Your task to perform on an android device: set the stopwatch Image 0: 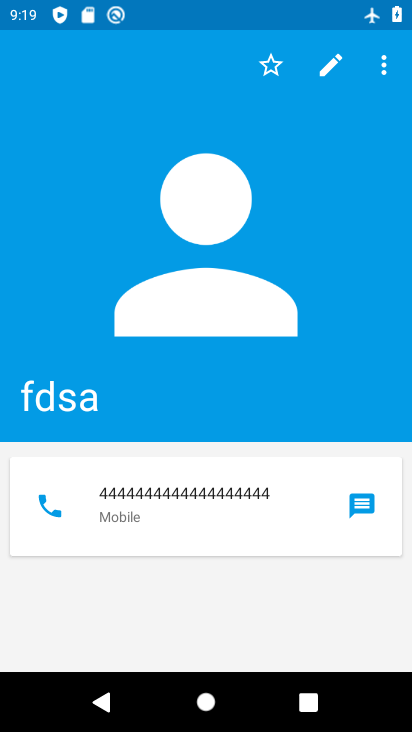
Step 0: press home button
Your task to perform on an android device: set the stopwatch Image 1: 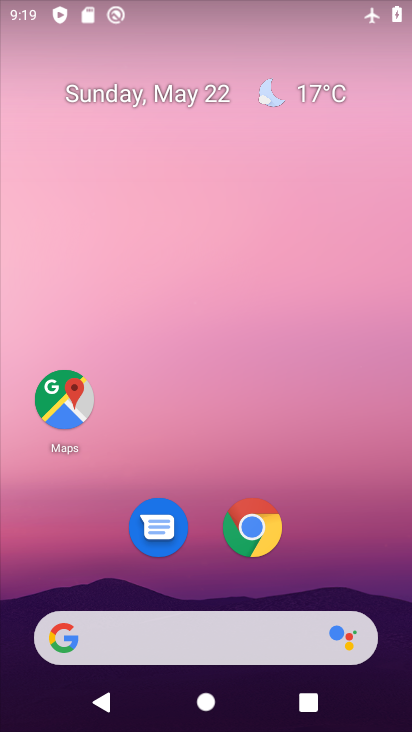
Step 1: drag from (318, 548) to (245, 88)
Your task to perform on an android device: set the stopwatch Image 2: 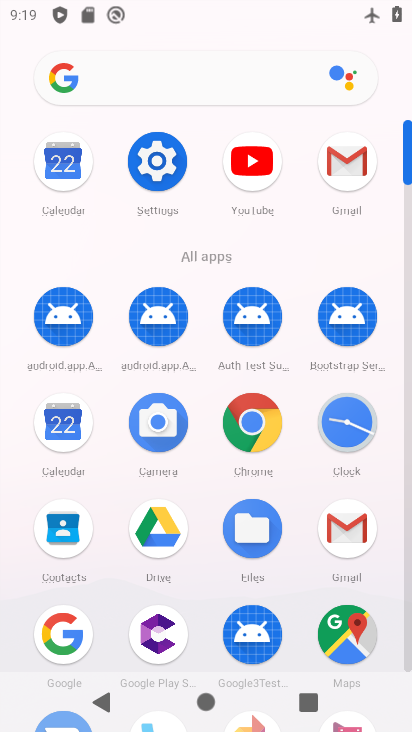
Step 2: click (346, 413)
Your task to perform on an android device: set the stopwatch Image 3: 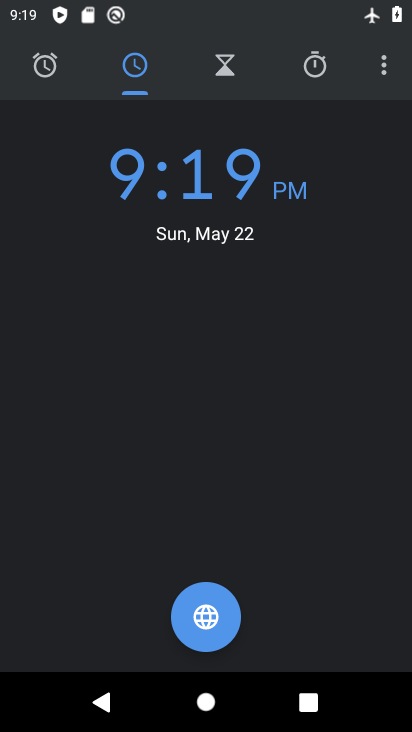
Step 3: click (318, 68)
Your task to perform on an android device: set the stopwatch Image 4: 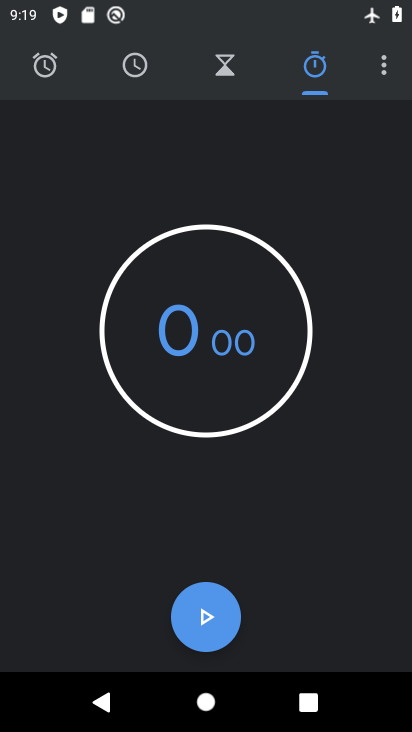
Step 4: task complete